Your task to perform on an android device: check battery use Image 0: 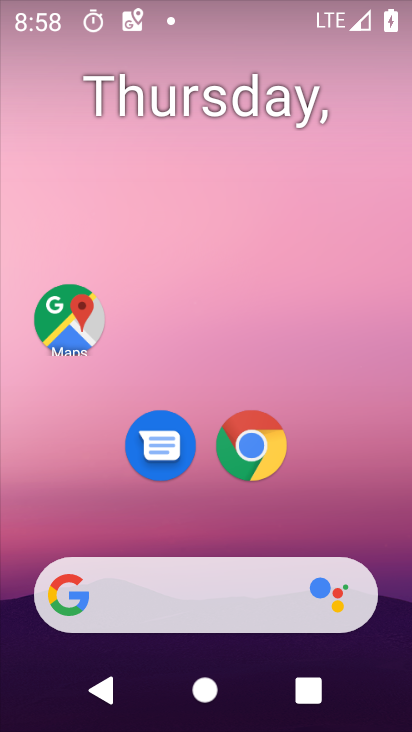
Step 0: click (281, 300)
Your task to perform on an android device: check battery use Image 1: 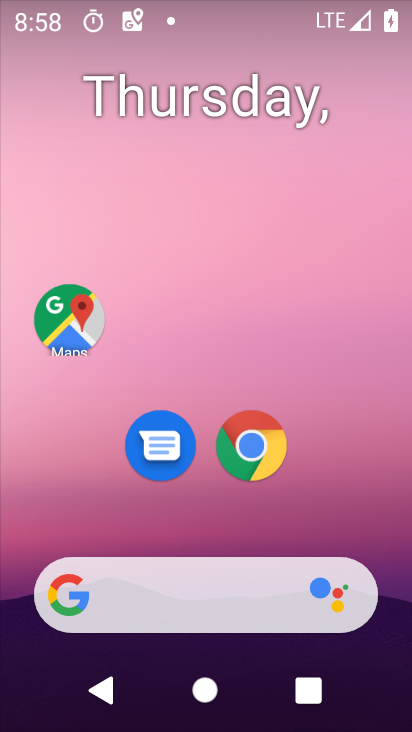
Step 1: drag from (156, 518) to (234, 223)
Your task to perform on an android device: check battery use Image 2: 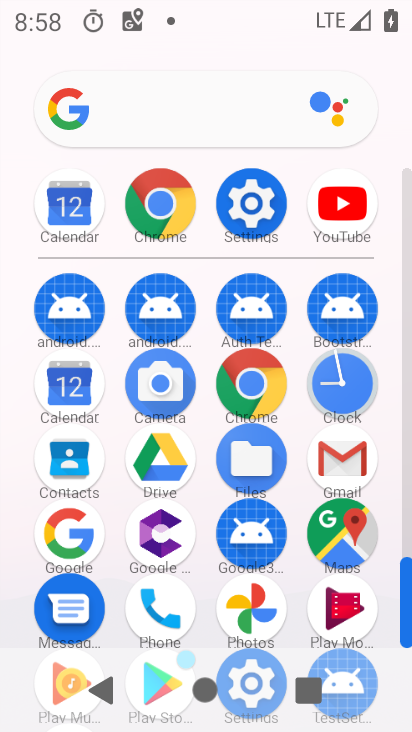
Step 2: click (231, 178)
Your task to perform on an android device: check battery use Image 3: 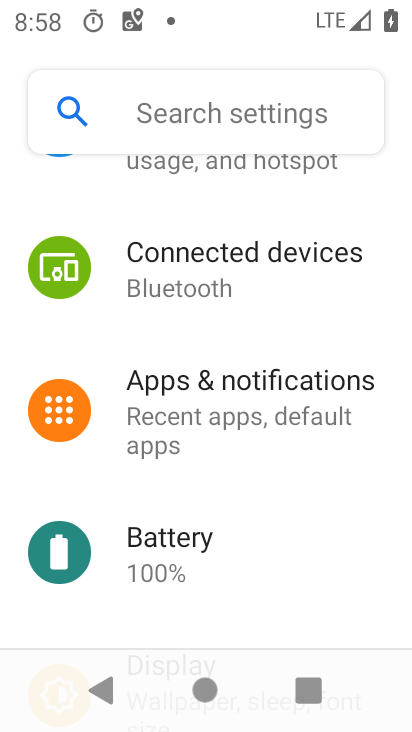
Step 3: click (166, 537)
Your task to perform on an android device: check battery use Image 4: 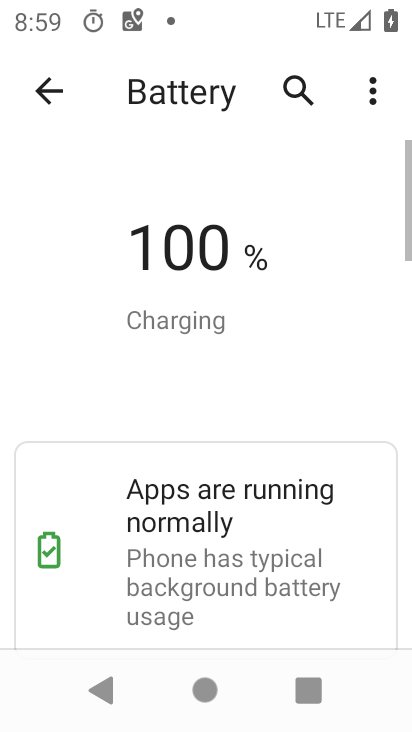
Step 4: drag from (246, 548) to (320, 286)
Your task to perform on an android device: check battery use Image 5: 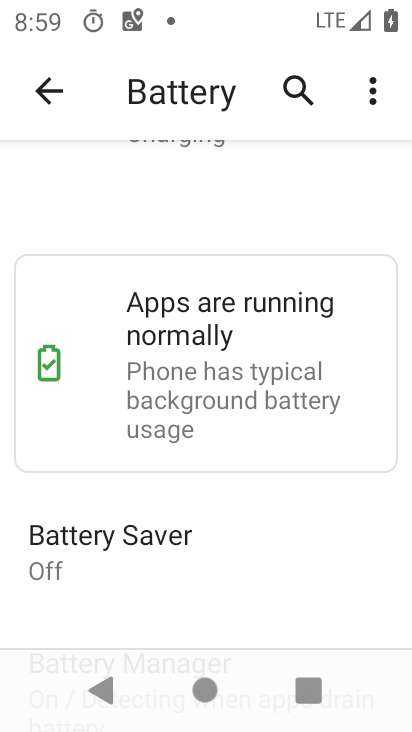
Step 5: click (368, 93)
Your task to perform on an android device: check battery use Image 6: 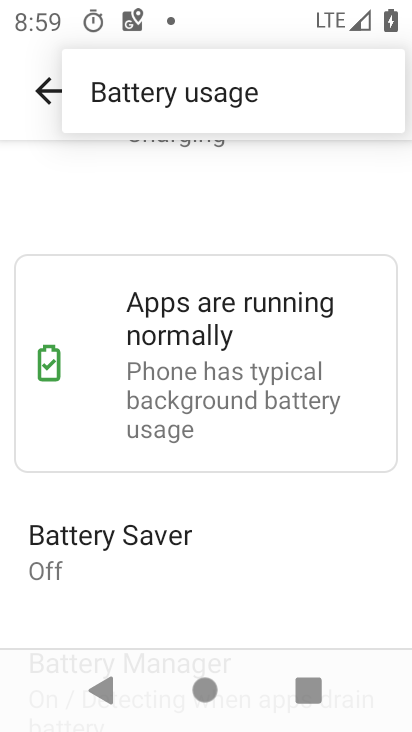
Step 6: click (239, 110)
Your task to perform on an android device: check battery use Image 7: 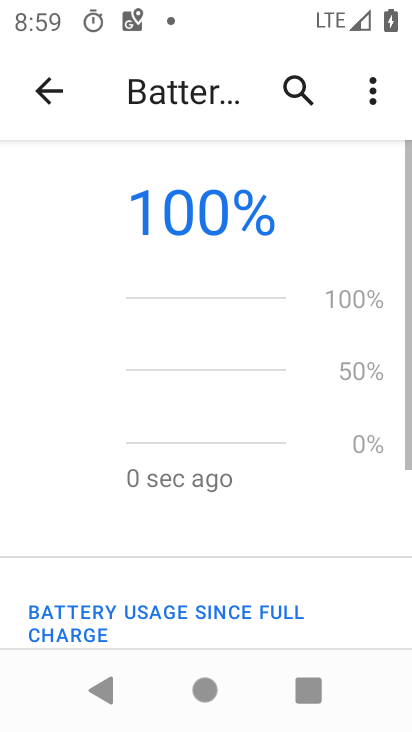
Step 7: task complete